Your task to perform on an android device: turn off data saver in the chrome app Image 0: 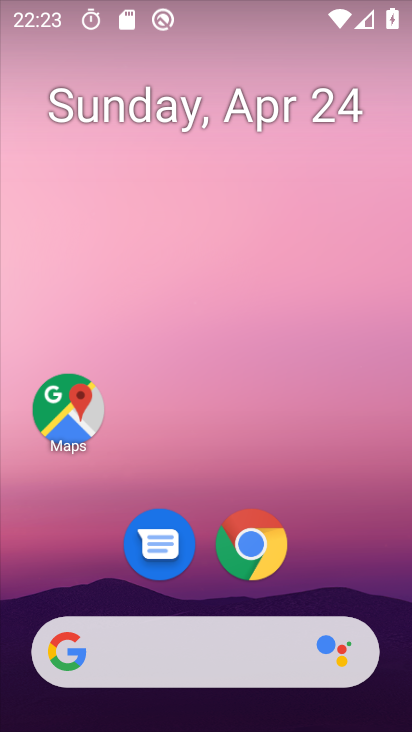
Step 0: drag from (352, 563) to (332, 164)
Your task to perform on an android device: turn off data saver in the chrome app Image 1: 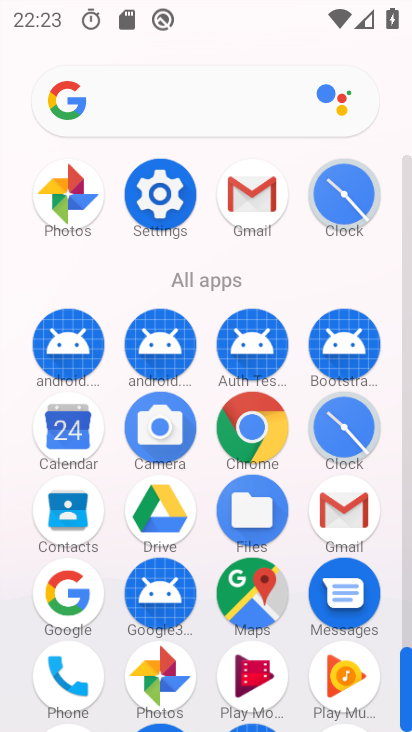
Step 1: click (258, 422)
Your task to perform on an android device: turn off data saver in the chrome app Image 2: 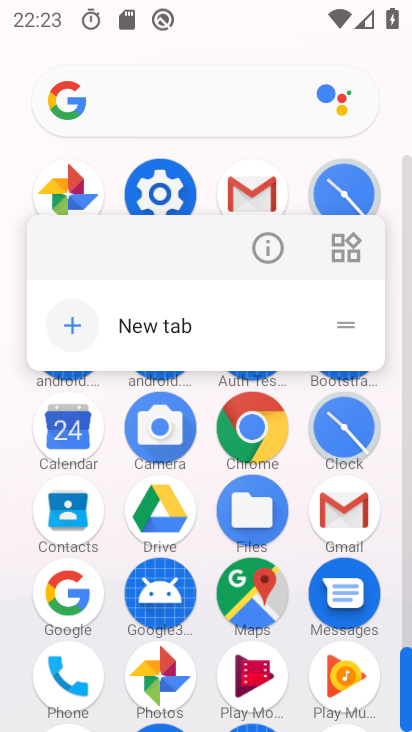
Step 2: click (247, 422)
Your task to perform on an android device: turn off data saver in the chrome app Image 3: 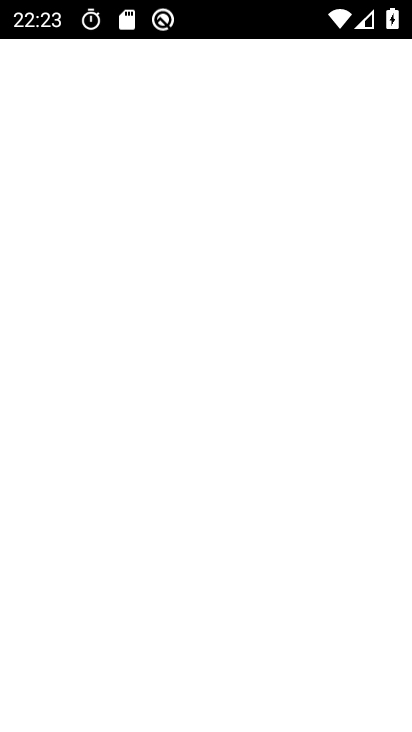
Step 3: click (246, 421)
Your task to perform on an android device: turn off data saver in the chrome app Image 4: 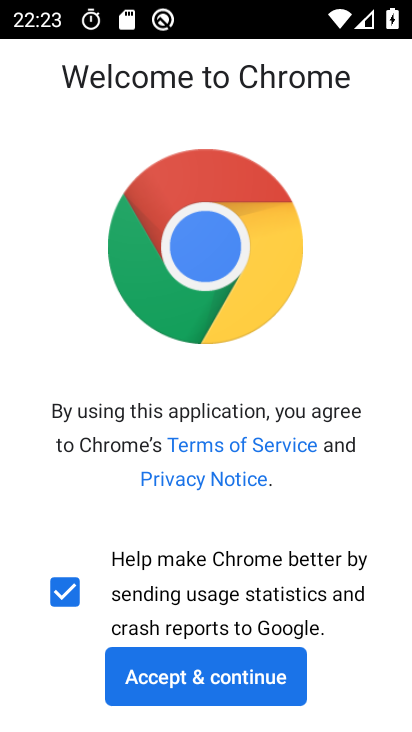
Step 4: click (203, 666)
Your task to perform on an android device: turn off data saver in the chrome app Image 5: 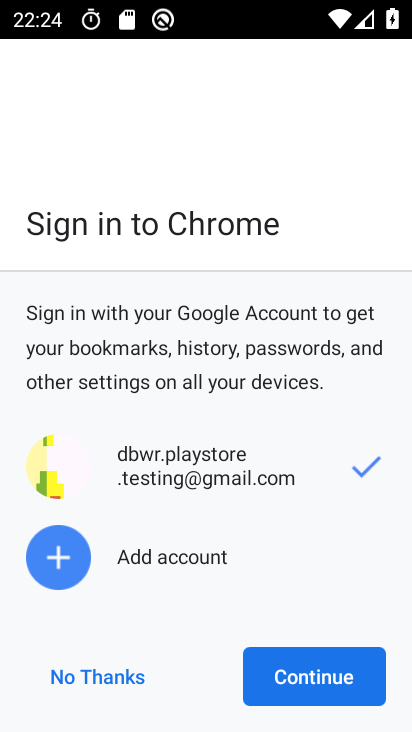
Step 5: click (302, 677)
Your task to perform on an android device: turn off data saver in the chrome app Image 6: 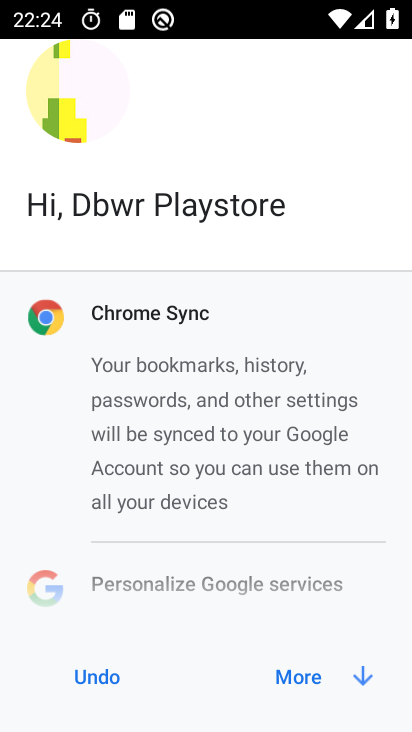
Step 6: click (301, 677)
Your task to perform on an android device: turn off data saver in the chrome app Image 7: 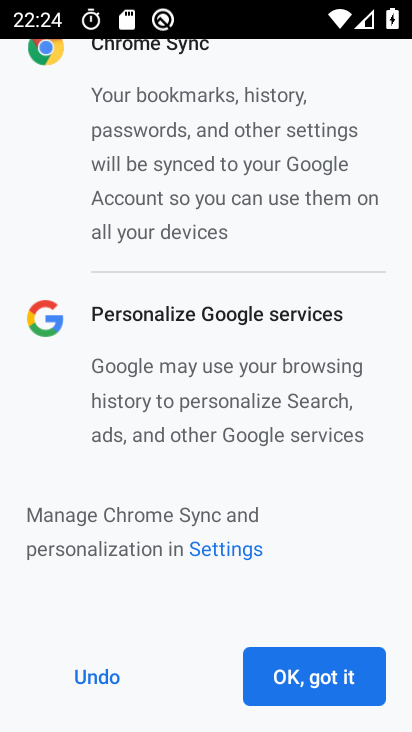
Step 7: click (309, 678)
Your task to perform on an android device: turn off data saver in the chrome app Image 8: 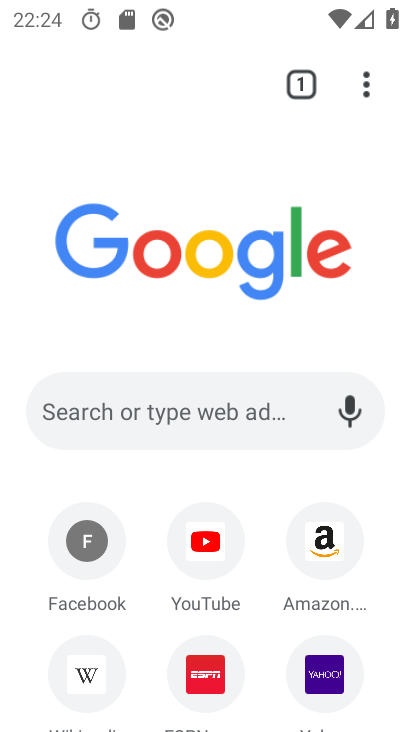
Step 8: click (364, 86)
Your task to perform on an android device: turn off data saver in the chrome app Image 9: 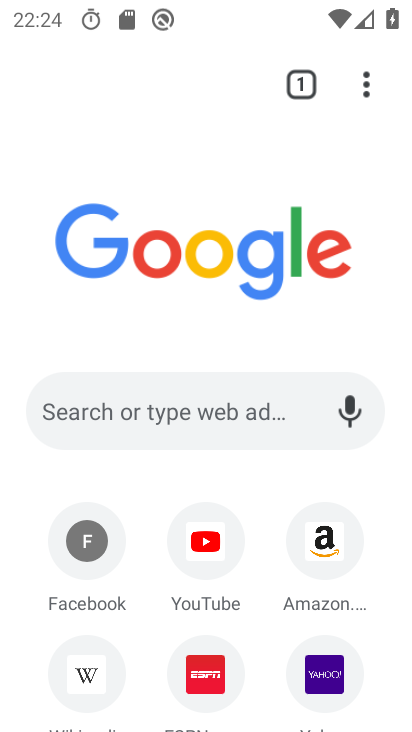
Step 9: click (353, 88)
Your task to perform on an android device: turn off data saver in the chrome app Image 10: 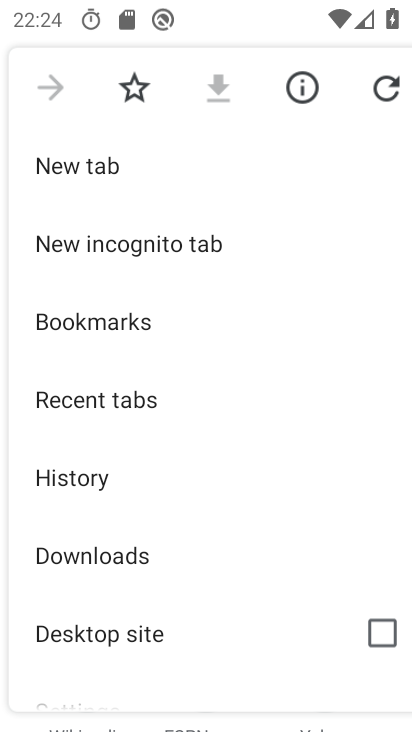
Step 10: drag from (180, 590) to (234, 127)
Your task to perform on an android device: turn off data saver in the chrome app Image 11: 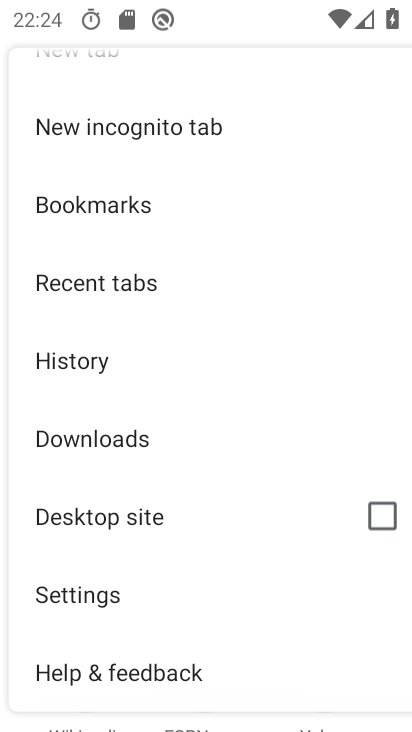
Step 11: click (101, 595)
Your task to perform on an android device: turn off data saver in the chrome app Image 12: 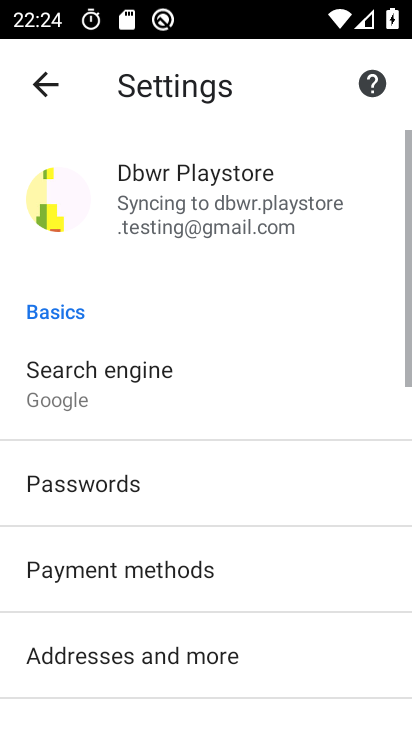
Step 12: drag from (204, 577) to (339, 93)
Your task to perform on an android device: turn off data saver in the chrome app Image 13: 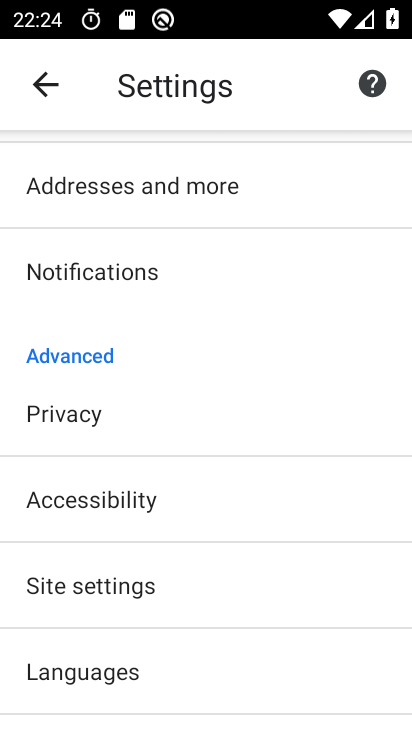
Step 13: drag from (172, 643) to (254, 356)
Your task to perform on an android device: turn off data saver in the chrome app Image 14: 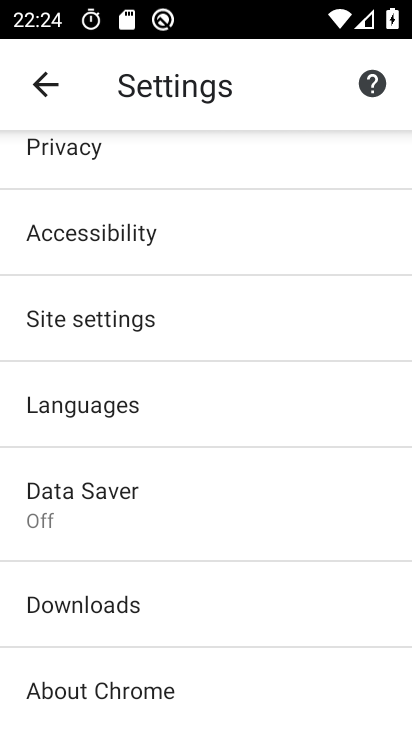
Step 14: click (102, 513)
Your task to perform on an android device: turn off data saver in the chrome app Image 15: 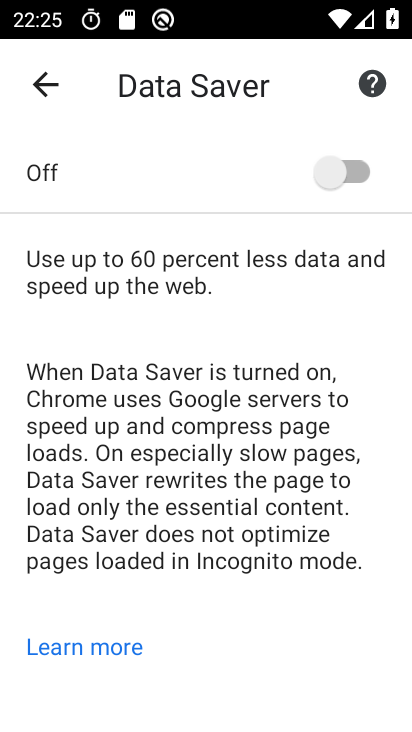
Step 15: task complete